Your task to perform on an android device: open a bookmark in the chrome app Image 0: 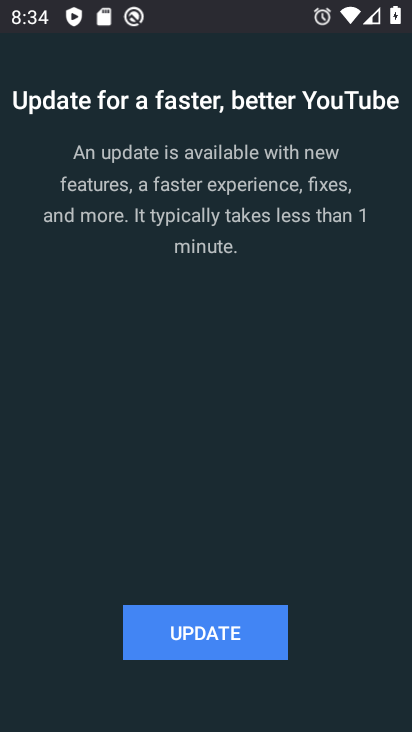
Step 0: press home button
Your task to perform on an android device: open a bookmark in the chrome app Image 1: 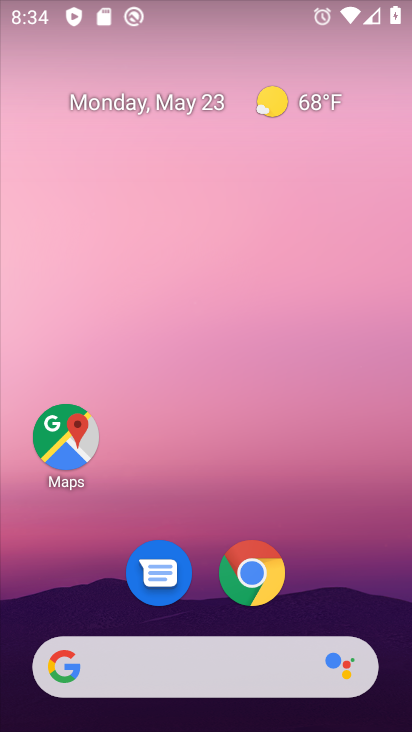
Step 1: click (247, 568)
Your task to perform on an android device: open a bookmark in the chrome app Image 2: 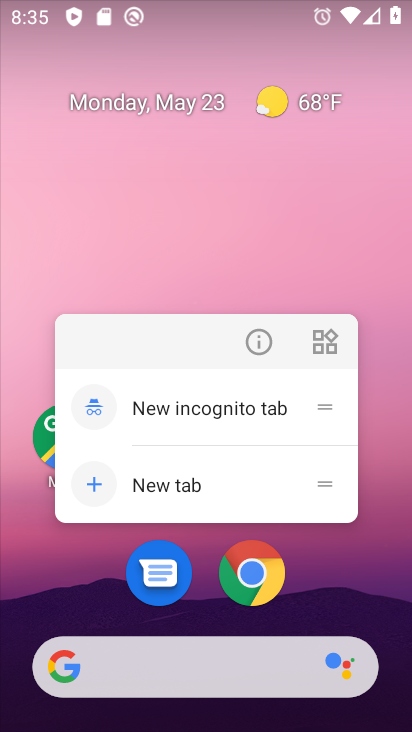
Step 2: click (249, 570)
Your task to perform on an android device: open a bookmark in the chrome app Image 3: 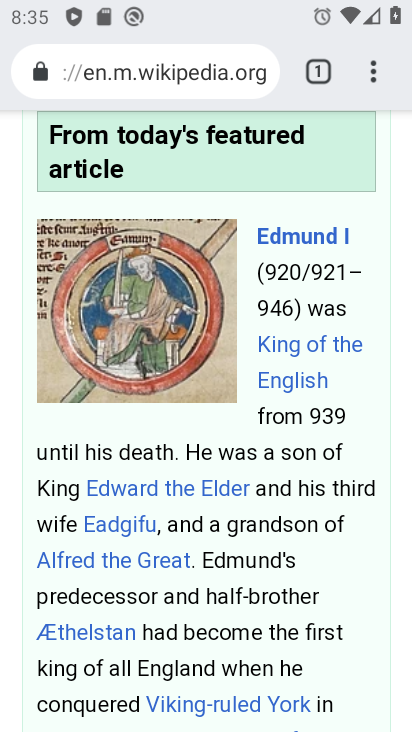
Step 3: click (364, 66)
Your task to perform on an android device: open a bookmark in the chrome app Image 4: 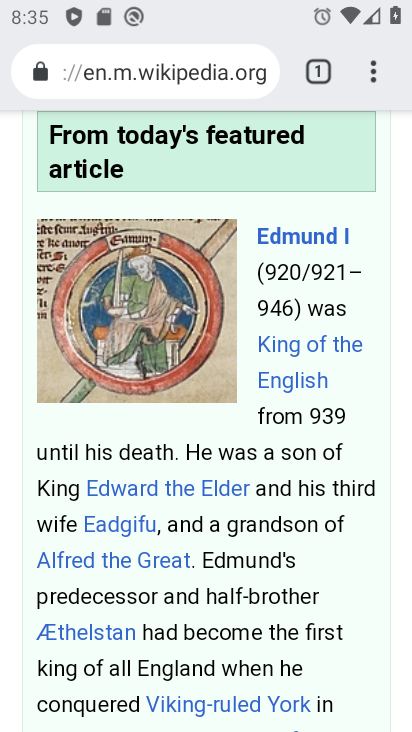
Step 4: click (373, 67)
Your task to perform on an android device: open a bookmark in the chrome app Image 5: 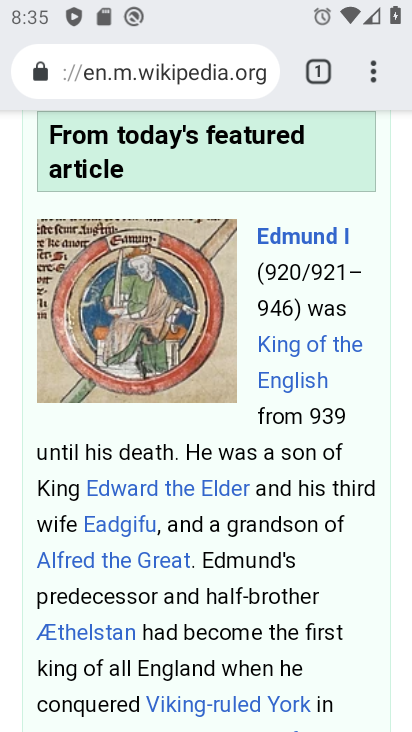
Step 5: click (370, 81)
Your task to perform on an android device: open a bookmark in the chrome app Image 6: 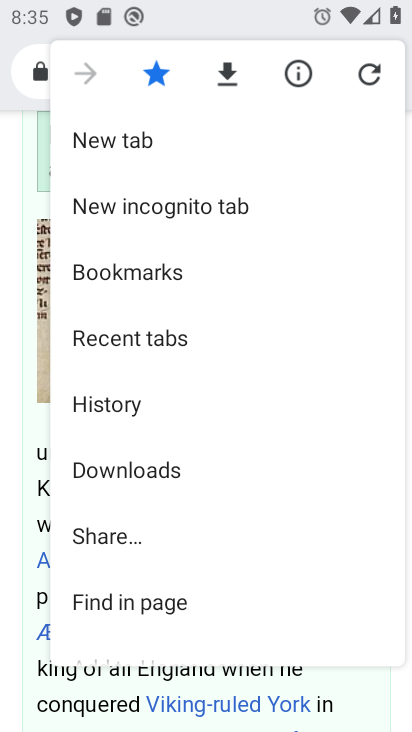
Step 6: click (188, 272)
Your task to perform on an android device: open a bookmark in the chrome app Image 7: 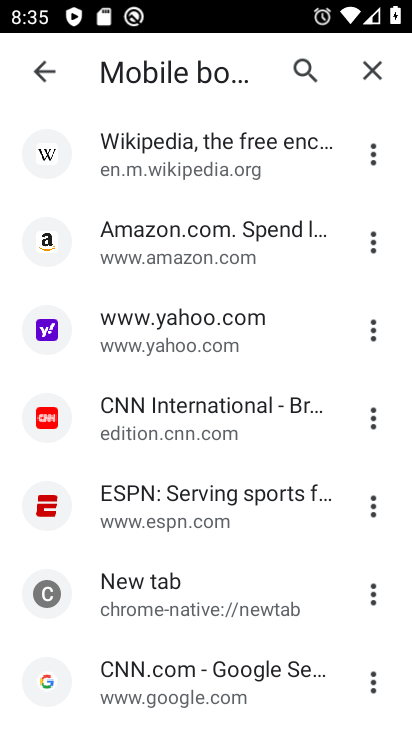
Step 7: drag from (196, 656) to (215, 144)
Your task to perform on an android device: open a bookmark in the chrome app Image 8: 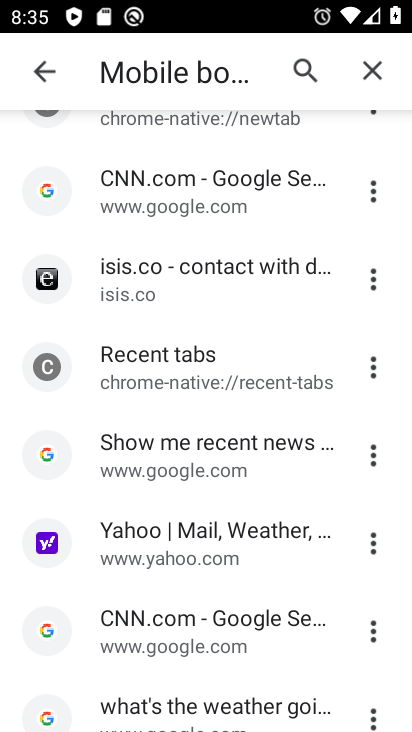
Step 8: click (229, 451)
Your task to perform on an android device: open a bookmark in the chrome app Image 9: 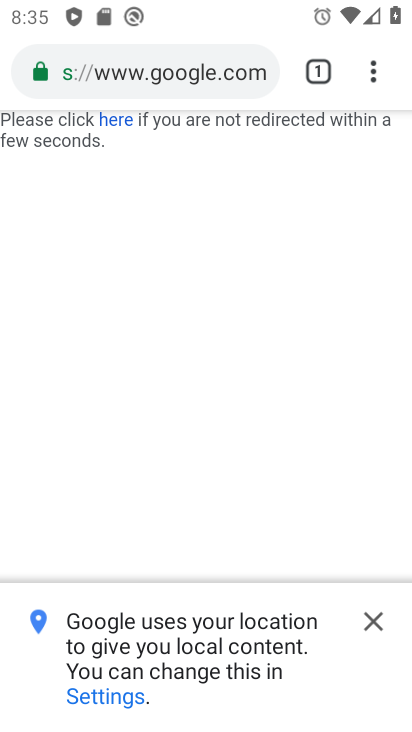
Step 9: task complete